Your task to perform on an android device: Go to sound settings Image 0: 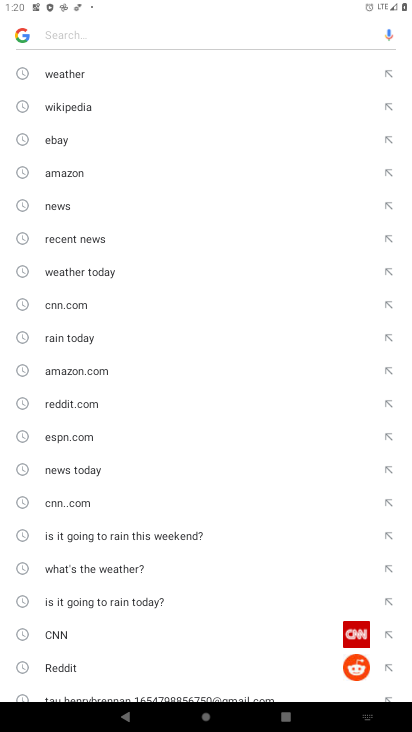
Step 0: press home button
Your task to perform on an android device: Go to sound settings Image 1: 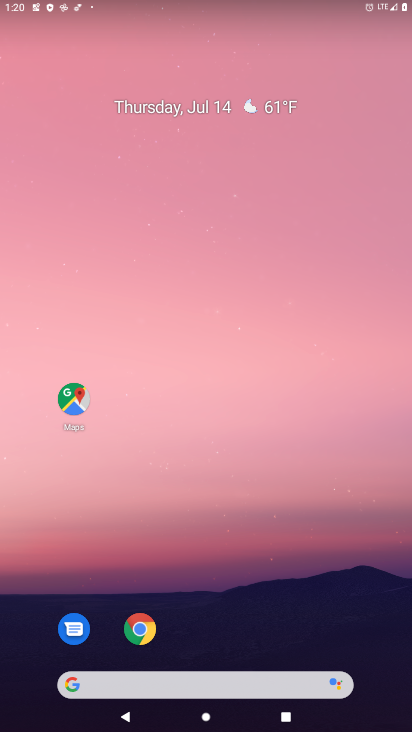
Step 1: drag from (272, 603) to (218, 182)
Your task to perform on an android device: Go to sound settings Image 2: 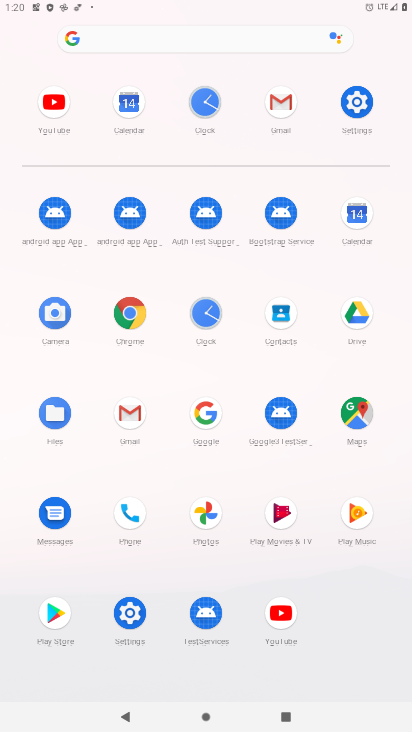
Step 2: click (356, 103)
Your task to perform on an android device: Go to sound settings Image 3: 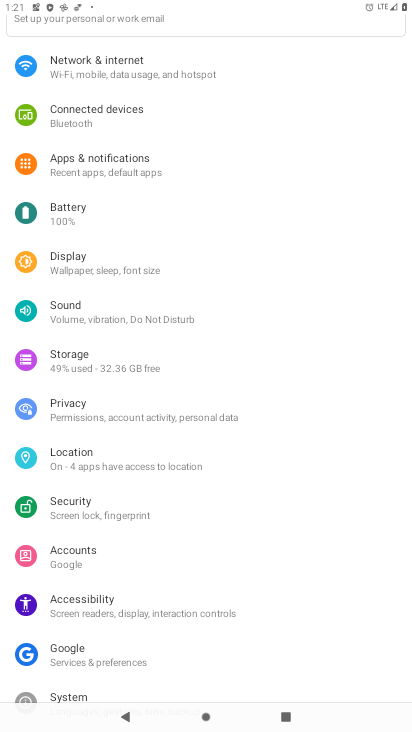
Step 3: click (64, 307)
Your task to perform on an android device: Go to sound settings Image 4: 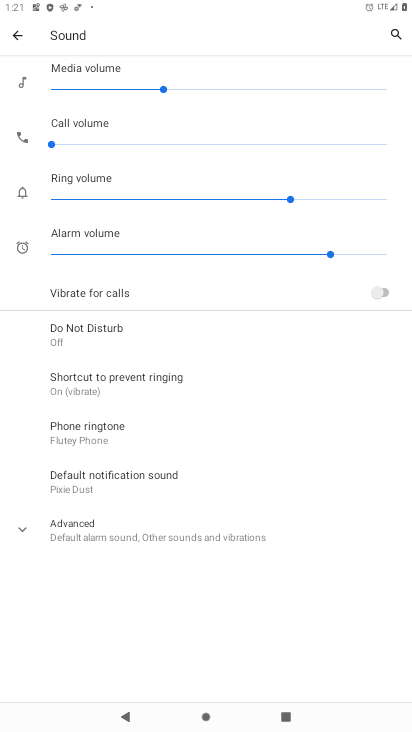
Step 4: task complete